Your task to perform on an android device: Open ESPN.com Image 0: 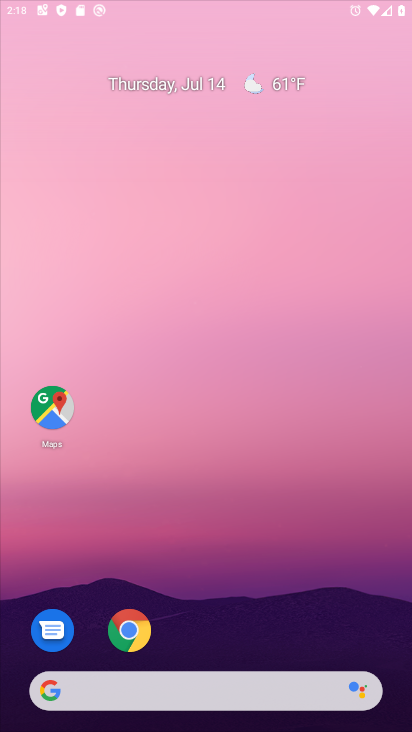
Step 0: press home button
Your task to perform on an android device: Open ESPN.com Image 1: 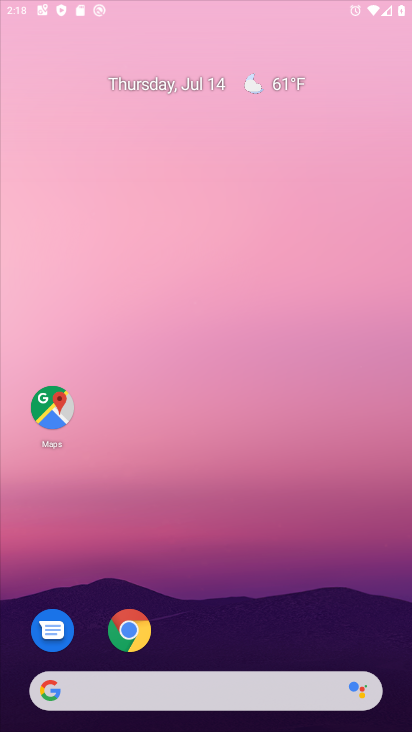
Step 1: drag from (378, 35) to (306, 52)
Your task to perform on an android device: Open ESPN.com Image 2: 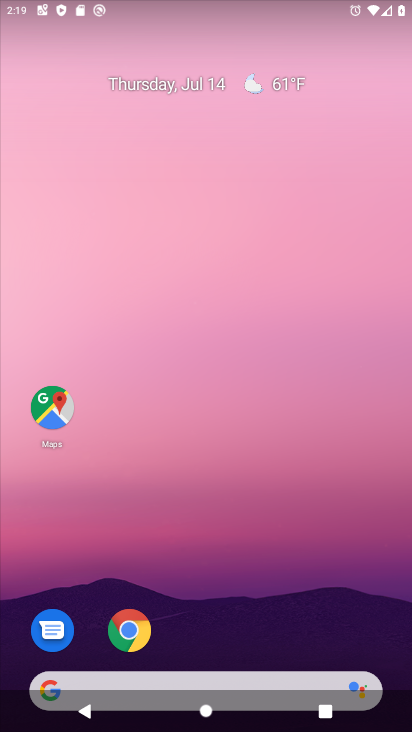
Step 2: click (136, 628)
Your task to perform on an android device: Open ESPN.com Image 3: 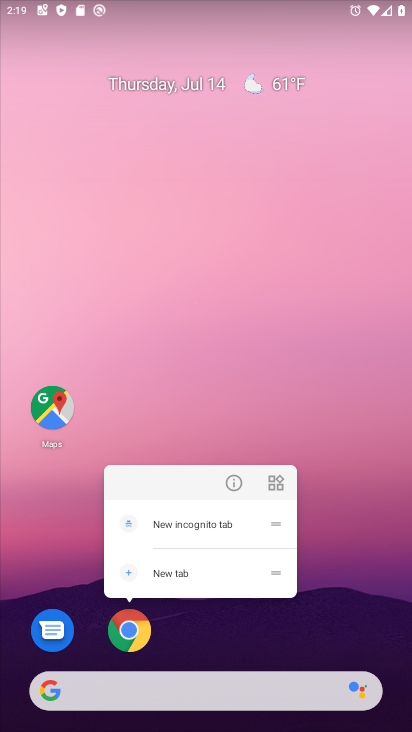
Step 3: click (121, 645)
Your task to perform on an android device: Open ESPN.com Image 4: 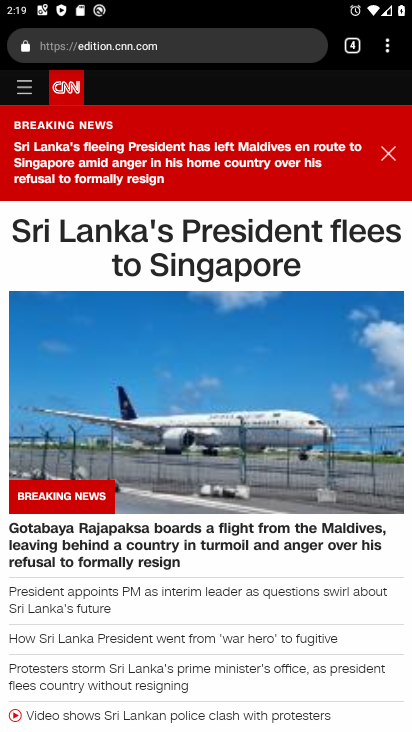
Step 4: drag from (388, 43) to (278, 129)
Your task to perform on an android device: Open ESPN.com Image 5: 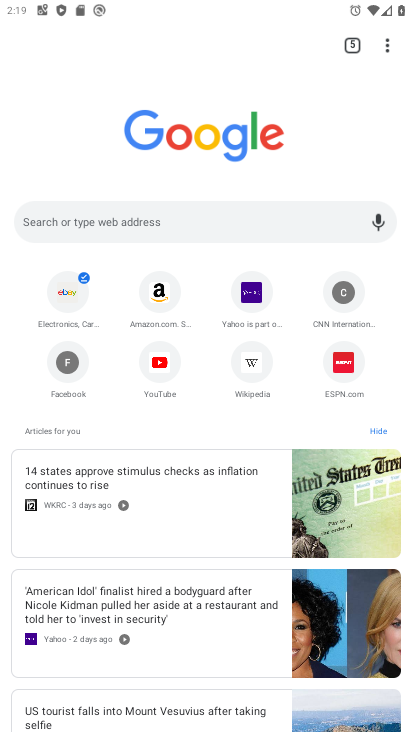
Step 5: click (351, 366)
Your task to perform on an android device: Open ESPN.com Image 6: 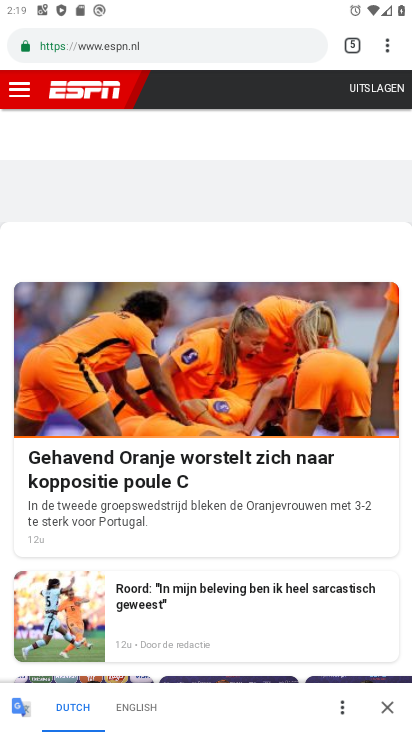
Step 6: click (157, 700)
Your task to perform on an android device: Open ESPN.com Image 7: 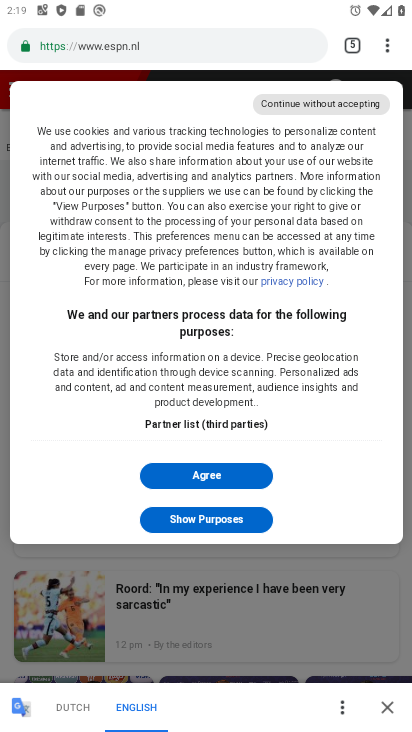
Step 7: click (206, 469)
Your task to perform on an android device: Open ESPN.com Image 8: 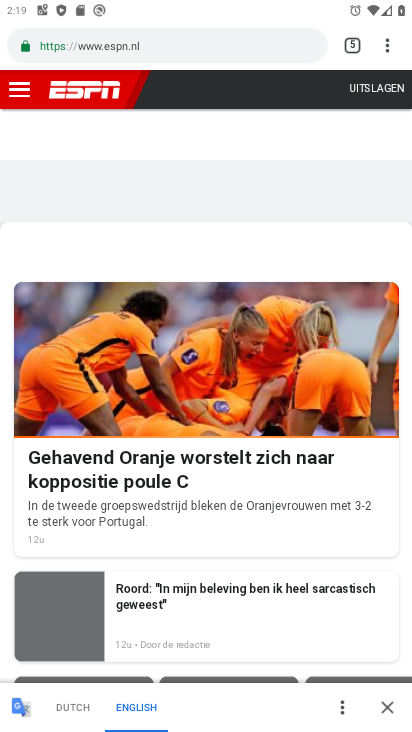
Step 8: task complete